Your task to perform on an android device: Open my contact list Image 0: 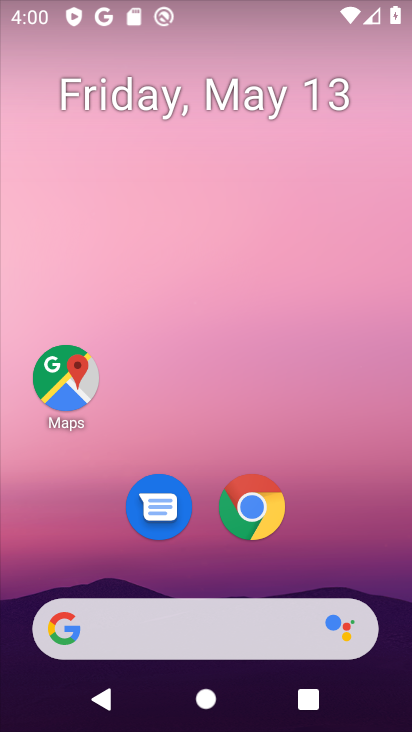
Step 0: drag from (171, 592) to (346, 158)
Your task to perform on an android device: Open my contact list Image 1: 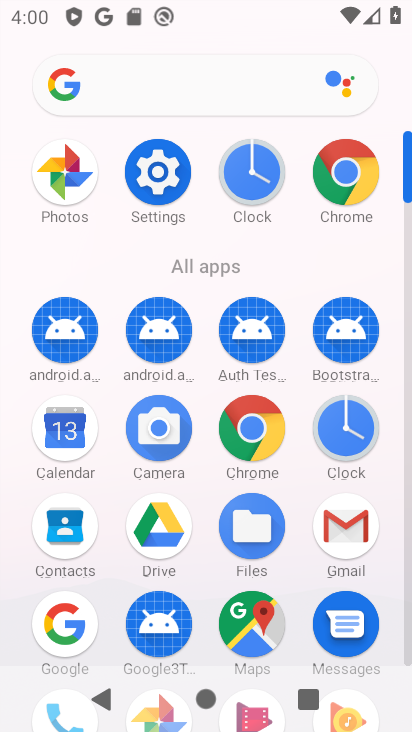
Step 1: click (75, 543)
Your task to perform on an android device: Open my contact list Image 2: 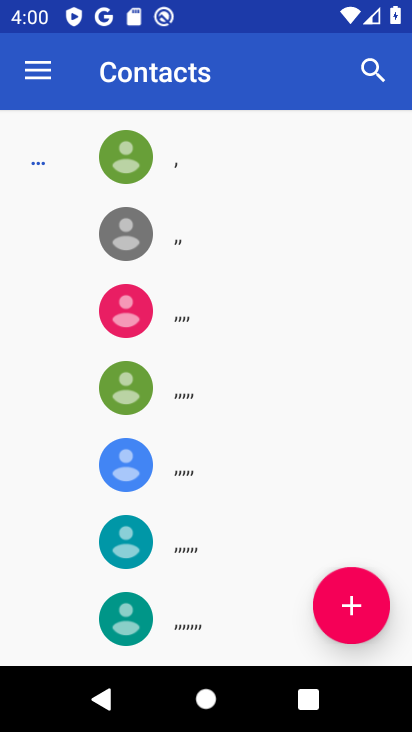
Step 2: task complete